Your task to perform on an android device: Open notification settings Image 0: 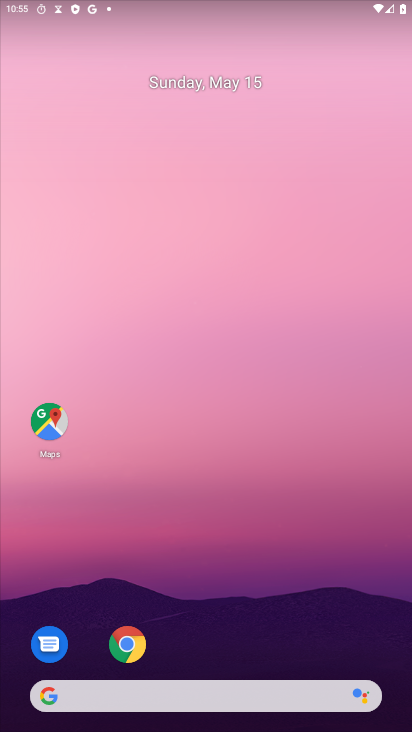
Step 0: drag from (208, 652) to (177, 161)
Your task to perform on an android device: Open notification settings Image 1: 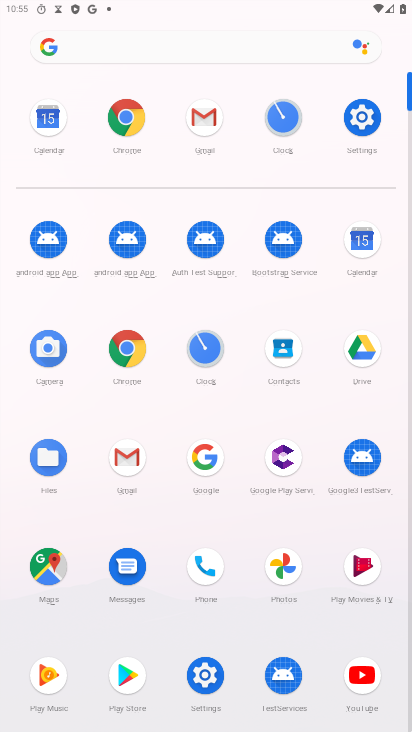
Step 1: click (378, 116)
Your task to perform on an android device: Open notification settings Image 2: 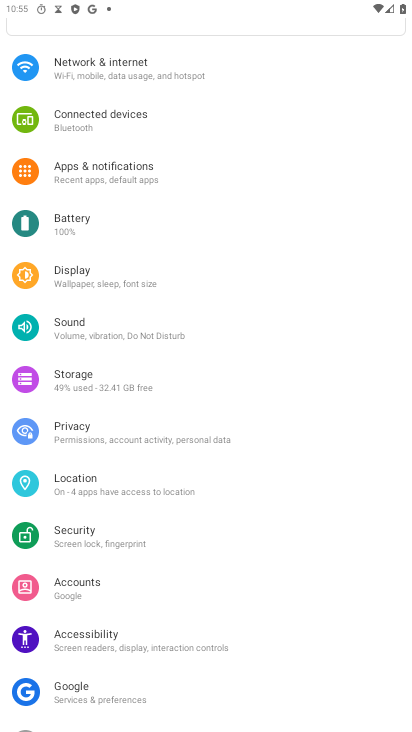
Step 2: click (181, 179)
Your task to perform on an android device: Open notification settings Image 3: 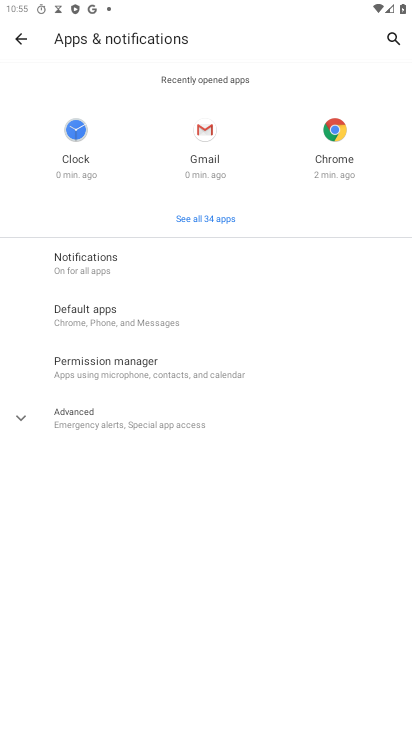
Step 3: click (265, 254)
Your task to perform on an android device: Open notification settings Image 4: 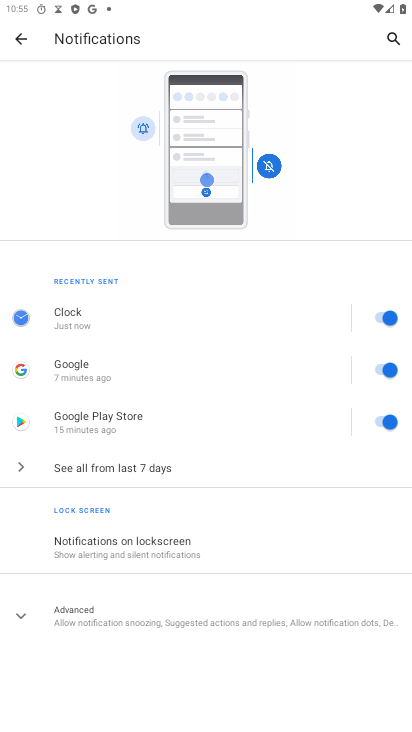
Step 4: click (261, 606)
Your task to perform on an android device: Open notification settings Image 5: 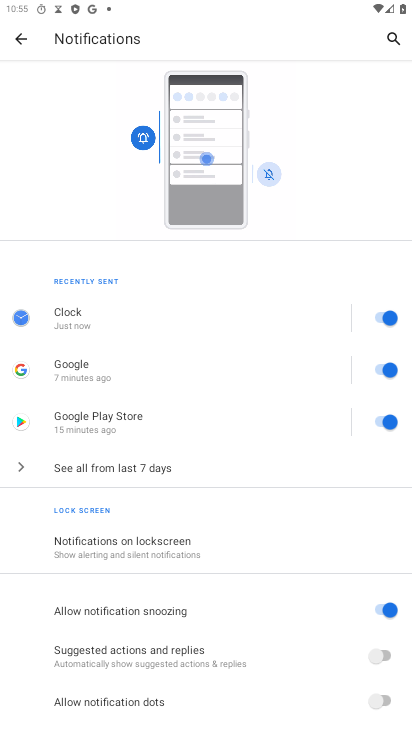
Step 5: task complete